Your task to perform on an android device: When is my next appointment? Image 0: 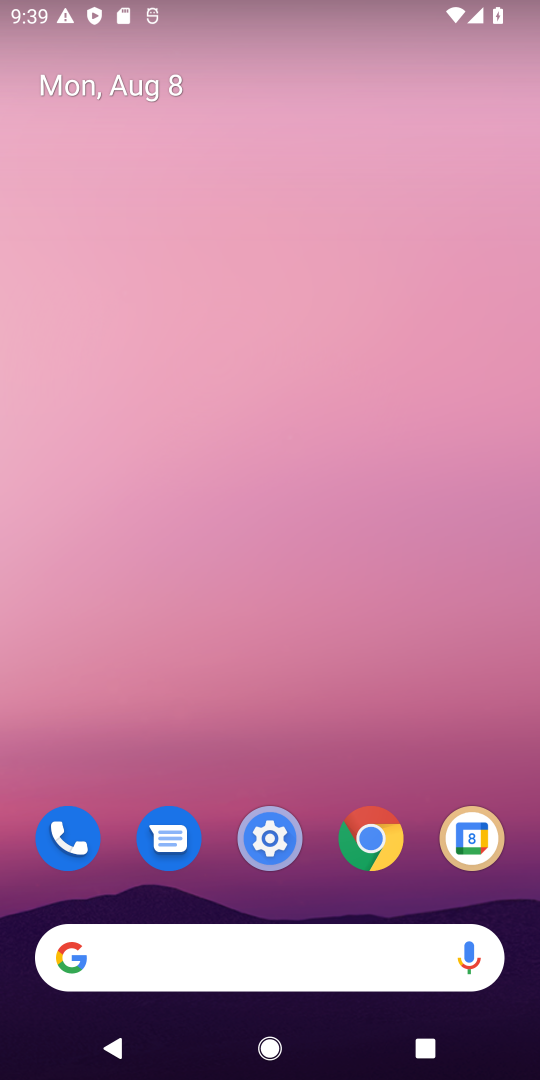
Step 0: press home button
Your task to perform on an android device: When is my next appointment? Image 1: 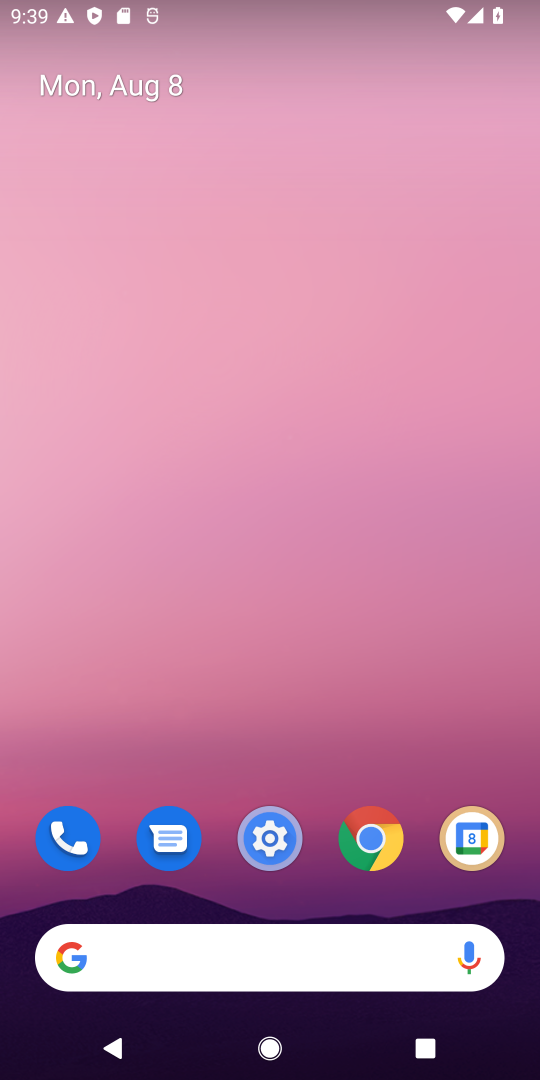
Step 1: drag from (307, 848) to (362, 154)
Your task to perform on an android device: When is my next appointment? Image 2: 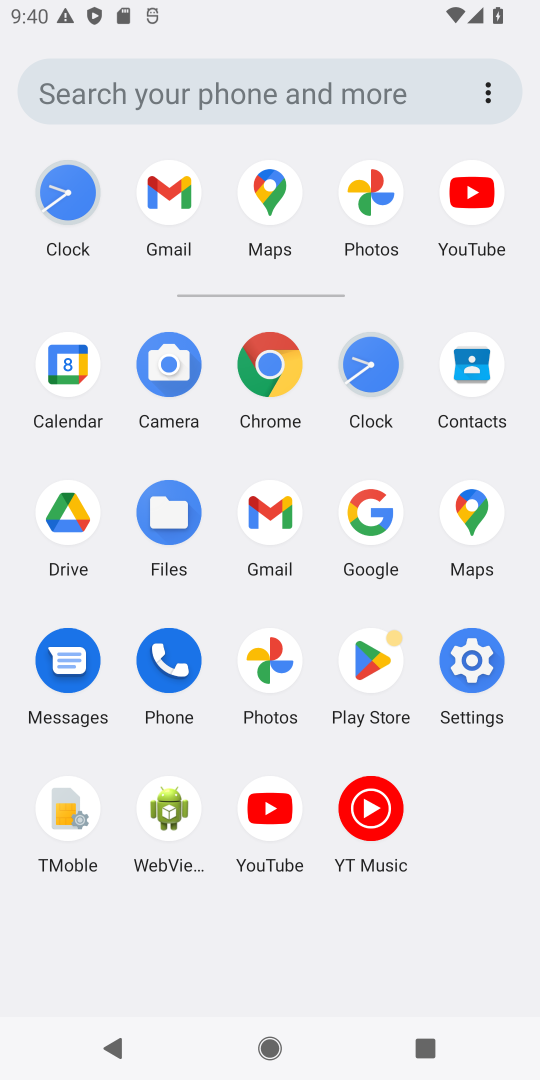
Step 2: click (47, 347)
Your task to perform on an android device: When is my next appointment? Image 3: 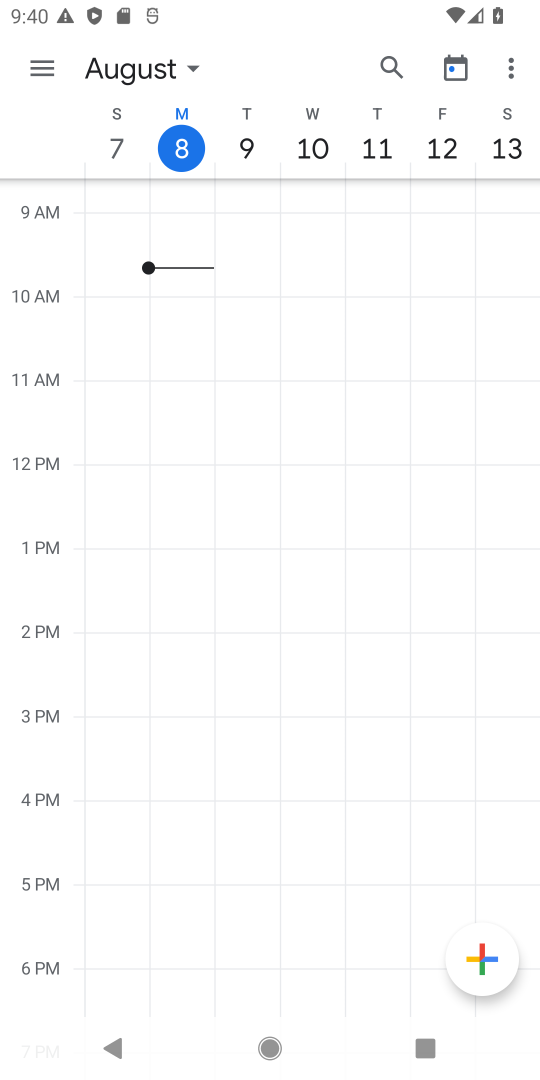
Step 3: click (40, 73)
Your task to perform on an android device: When is my next appointment? Image 4: 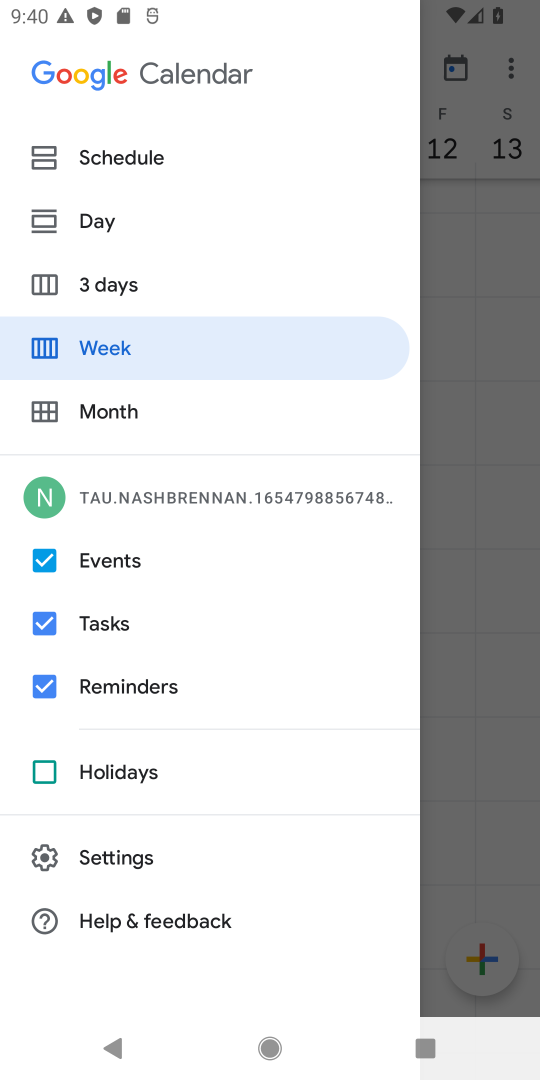
Step 4: click (128, 150)
Your task to perform on an android device: When is my next appointment? Image 5: 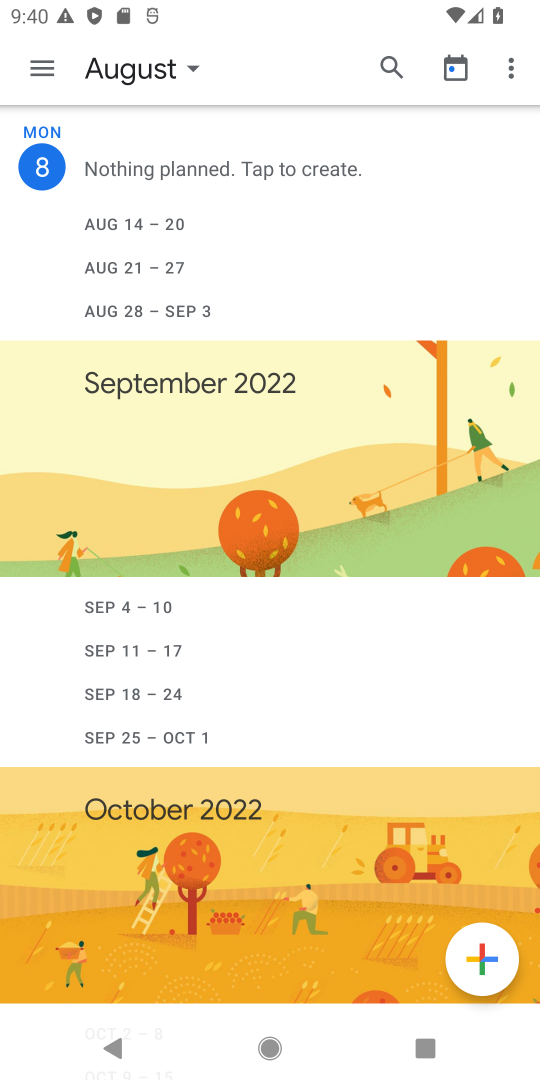
Step 5: task complete